Your task to perform on an android device: manage bookmarks in the chrome app Image 0: 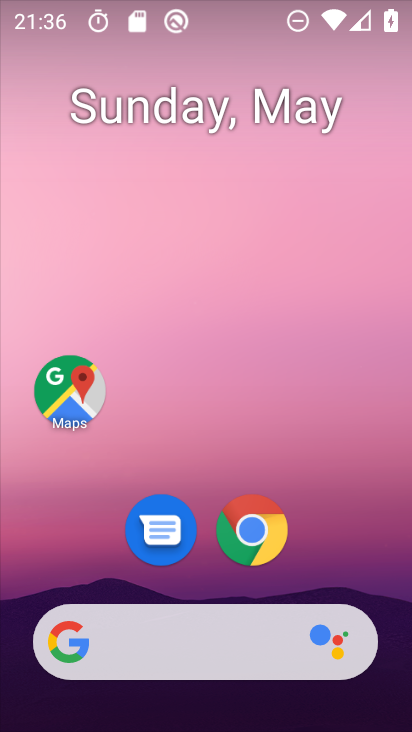
Step 0: drag from (288, 604) to (249, 62)
Your task to perform on an android device: manage bookmarks in the chrome app Image 1: 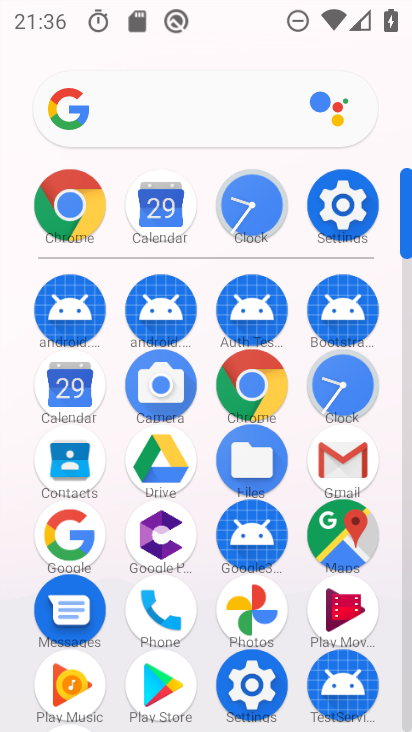
Step 1: click (85, 206)
Your task to perform on an android device: manage bookmarks in the chrome app Image 2: 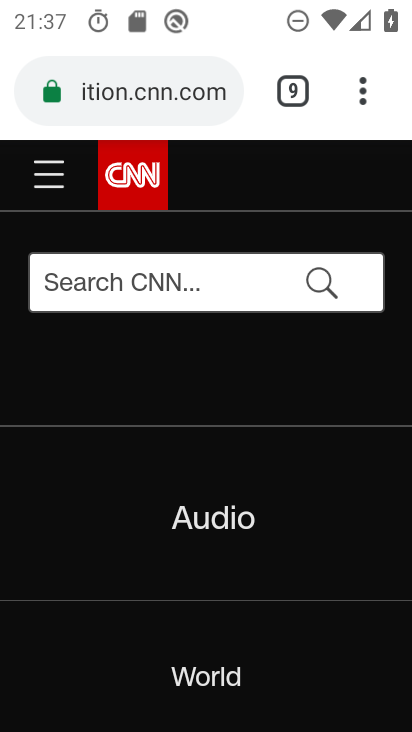
Step 2: click (348, 111)
Your task to perform on an android device: manage bookmarks in the chrome app Image 3: 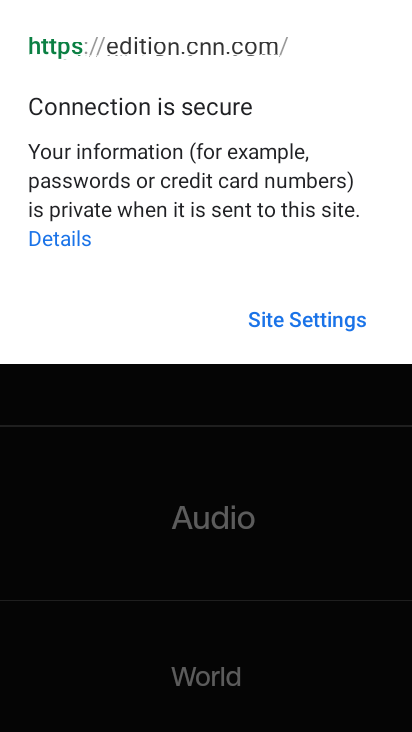
Step 3: click (222, 425)
Your task to perform on an android device: manage bookmarks in the chrome app Image 4: 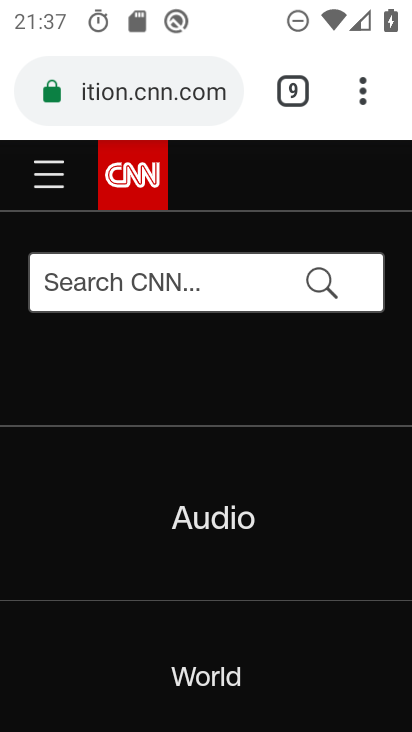
Step 4: click (365, 103)
Your task to perform on an android device: manage bookmarks in the chrome app Image 5: 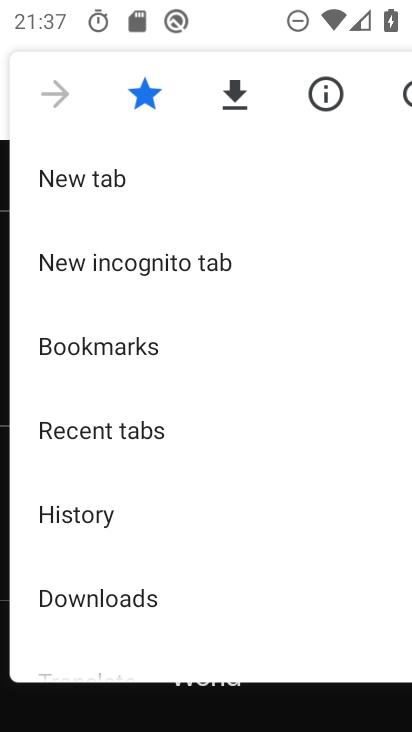
Step 5: click (75, 351)
Your task to perform on an android device: manage bookmarks in the chrome app Image 6: 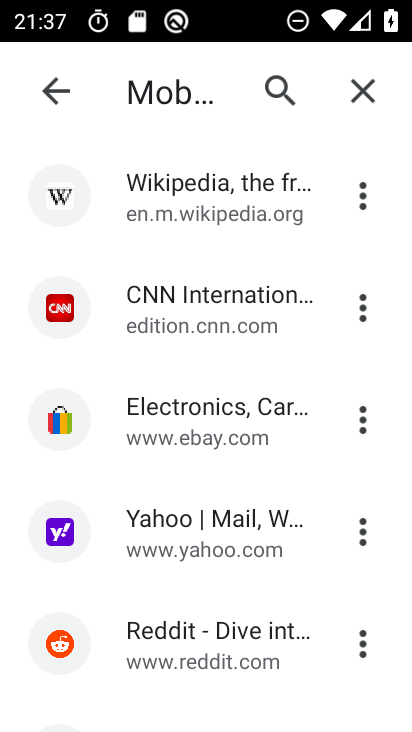
Step 6: task complete